Your task to perform on an android device: Open Chrome and go to the settings page Image 0: 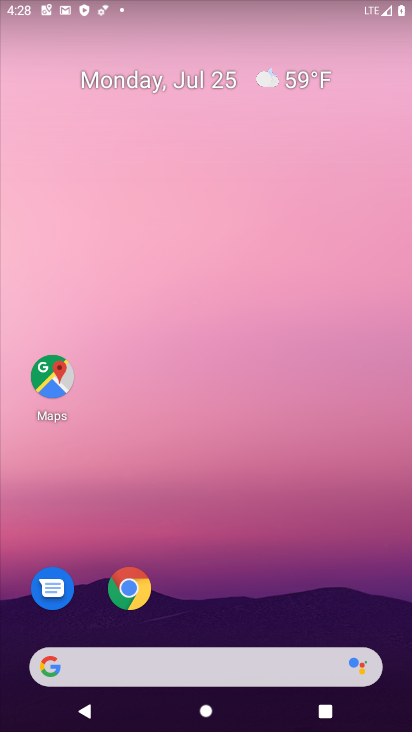
Step 0: drag from (260, 584) to (279, 75)
Your task to perform on an android device: Open Chrome and go to the settings page Image 1: 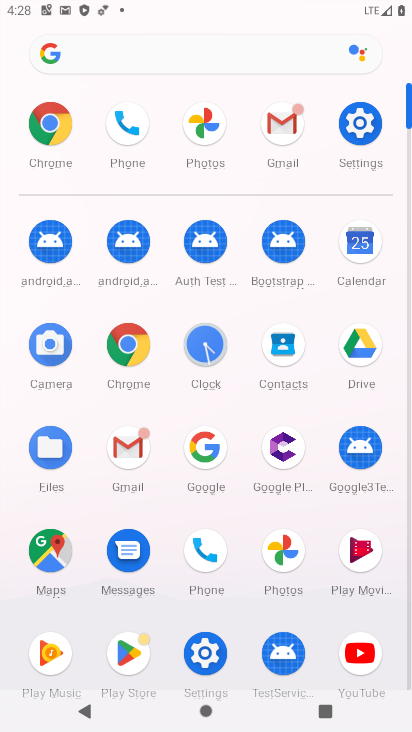
Step 1: click (124, 346)
Your task to perform on an android device: Open Chrome and go to the settings page Image 2: 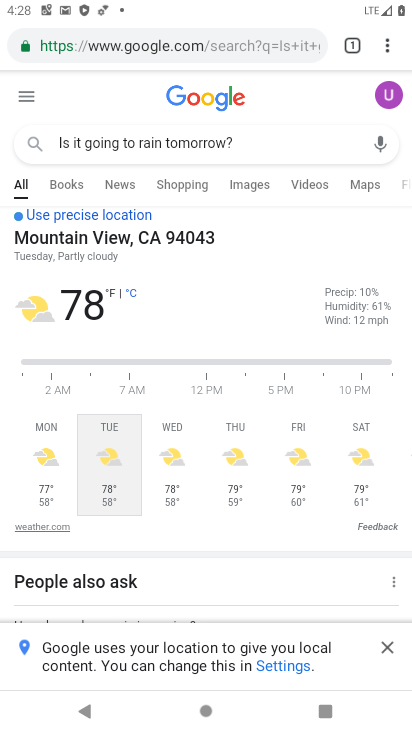
Step 2: task complete